Your task to perform on an android device: visit the assistant section in the google photos Image 0: 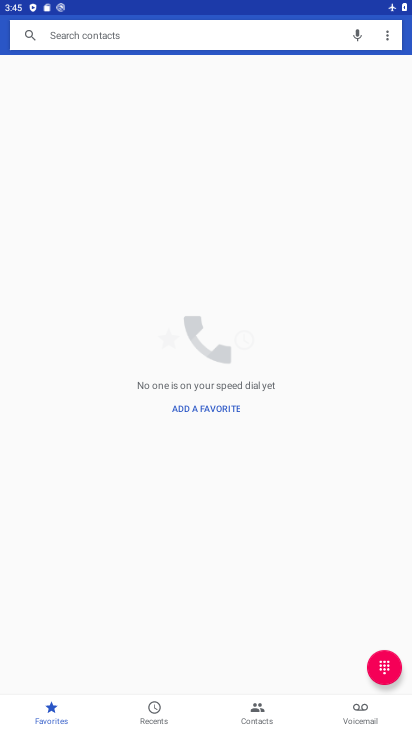
Step 0: press home button
Your task to perform on an android device: visit the assistant section in the google photos Image 1: 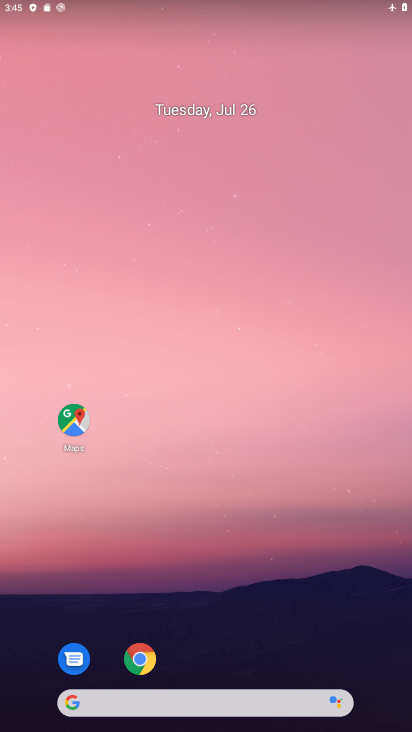
Step 1: drag from (348, 534) to (261, 16)
Your task to perform on an android device: visit the assistant section in the google photos Image 2: 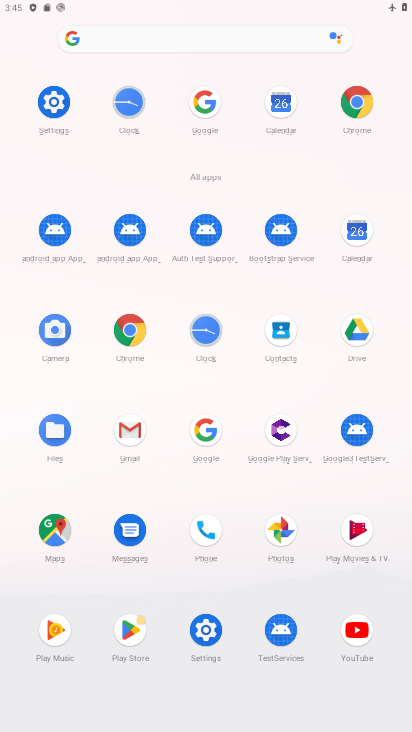
Step 2: click (269, 536)
Your task to perform on an android device: visit the assistant section in the google photos Image 3: 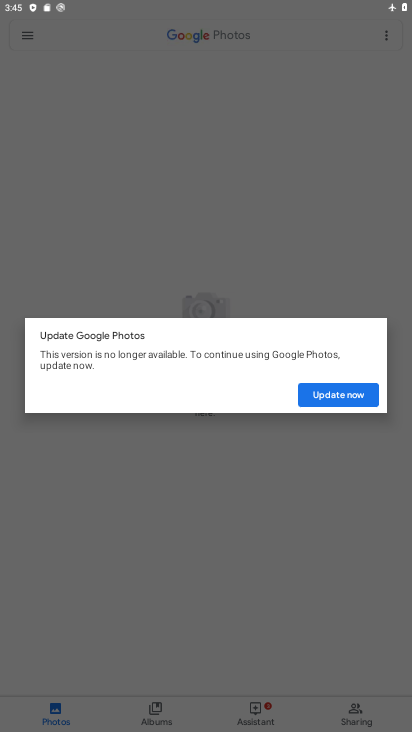
Step 3: click (348, 399)
Your task to perform on an android device: visit the assistant section in the google photos Image 4: 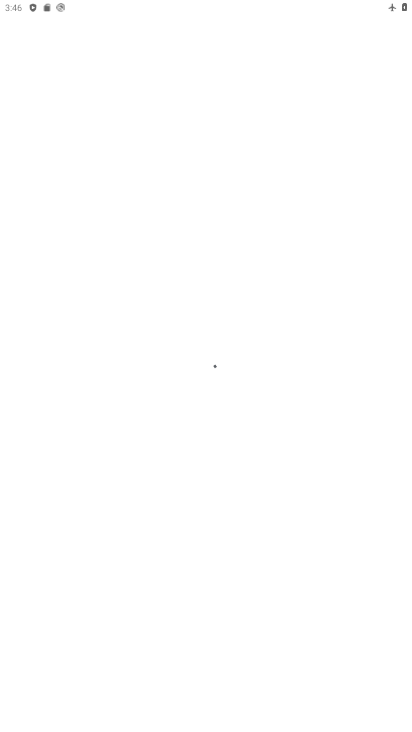
Step 4: press back button
Your task to perform on an android device: visit the assistant section in the google photos Image 5: 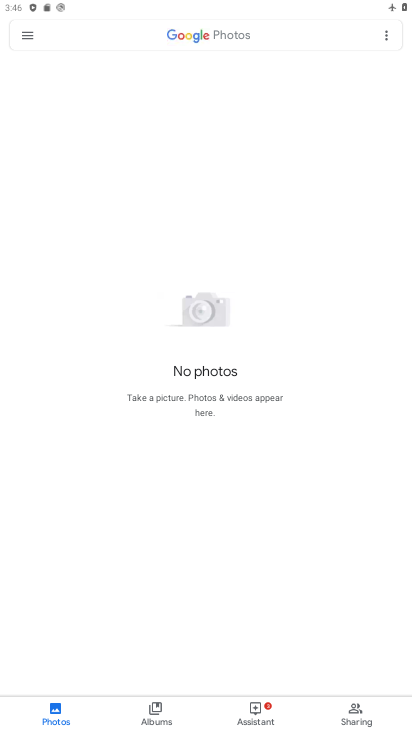
Step 5: click (248, 717)
Your task to perform on an android device: visit the assistant section in the google photos Image 6: 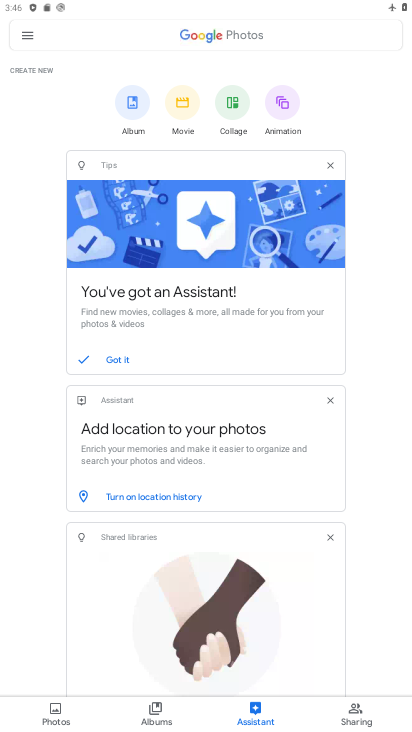
Step 6: task complete